Your task to perform on an android device: Play the last video I watched on Youtube Image 0: 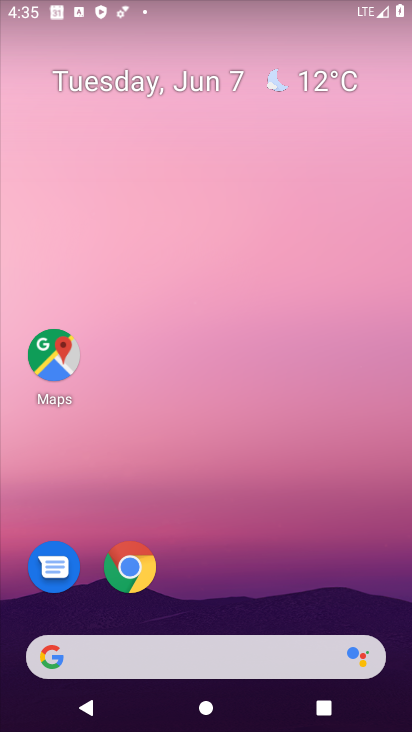
Step 0: drag from (164, 663) to (176, 158)
Your task to perform on an android device: Play the last video I watched on Youtube Image 1: 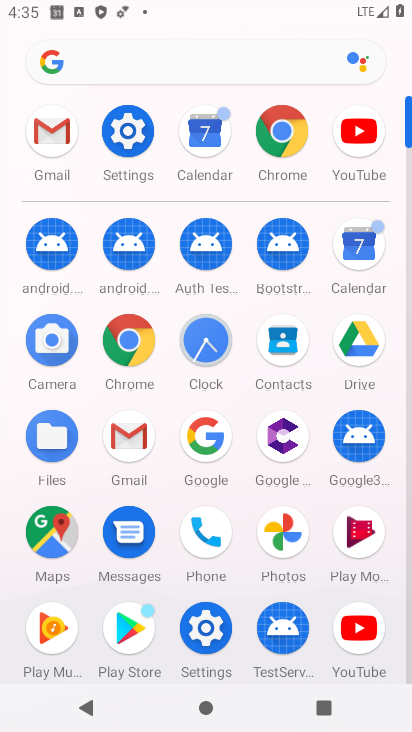
Step 1: click (348, 627)
Your task to perform on an android device: Play the last video I watched on Youtube Image 2: 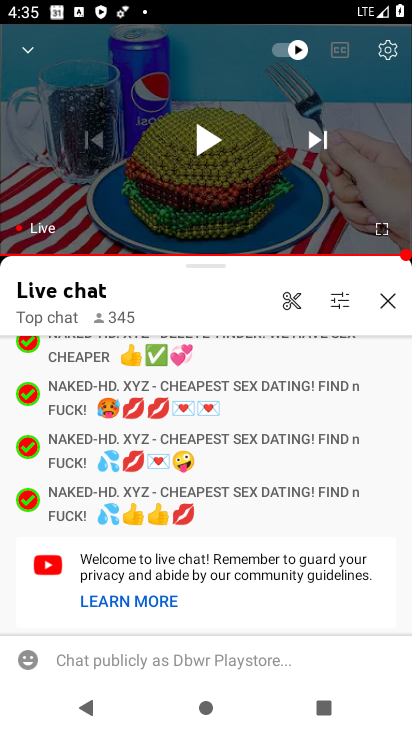
Step 2: task complete